Your task to perform on an android device: Open Google Maps and go to "Timeline" Image 0: 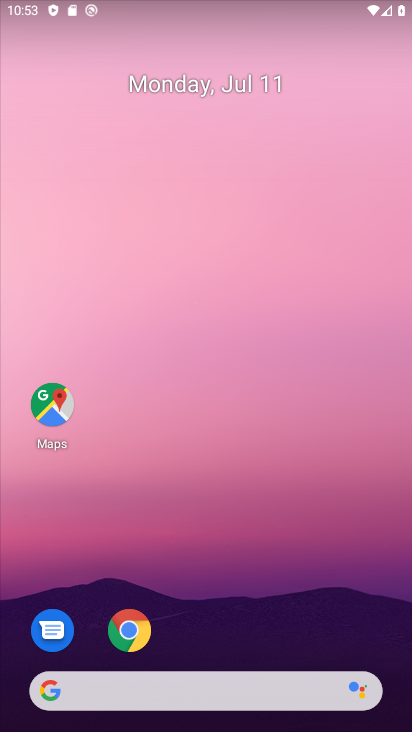
Step 0: drag from (199, 638) to (174, 0)
Your task to perform on an android device: Open Google Maps and go to "Timeline" Image 1: 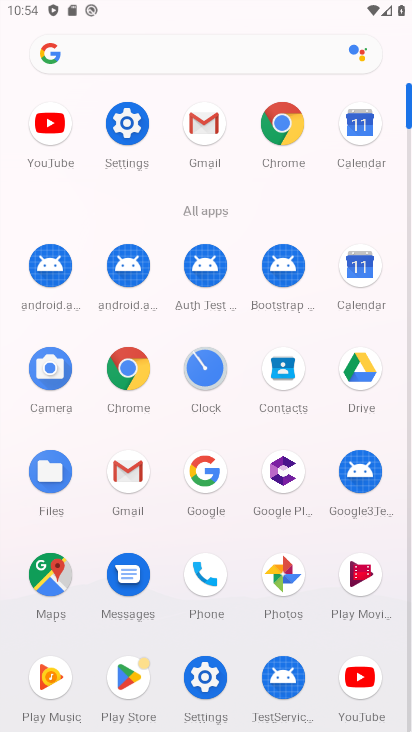
Step 1: click (47, 581)
Your task to perform on an android device: Open Google Maps and go to "Timeline" Image 2: 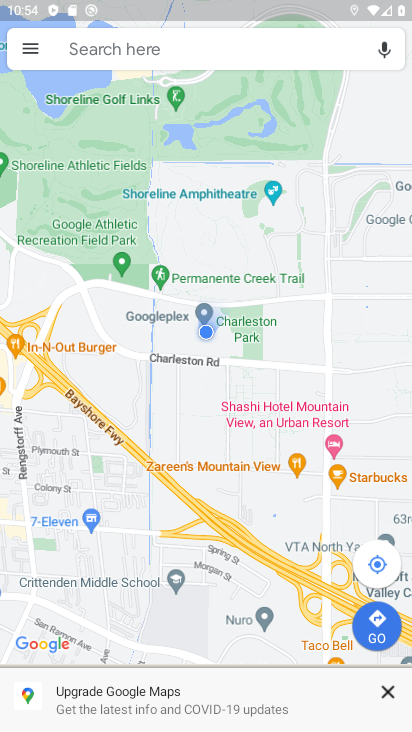
Step 2: click (28, 52)
Your task to perform on an android device: Open Google Maps and go to "Timeline" Image 3: 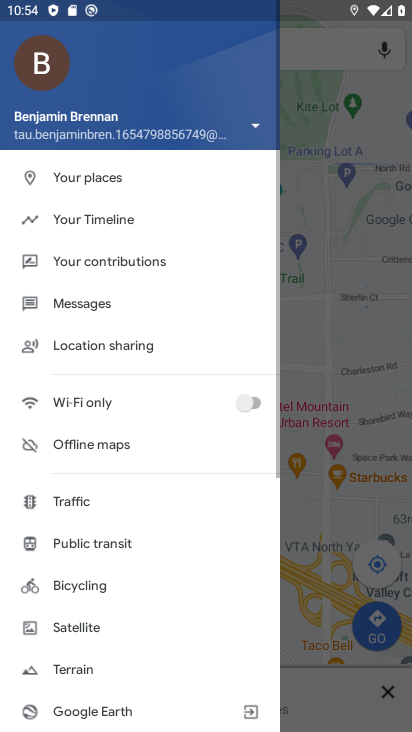
Step 3: click (114, 222)
Your task to perform on an android device: Open Google Maps and go to "Timeline" Image 4: 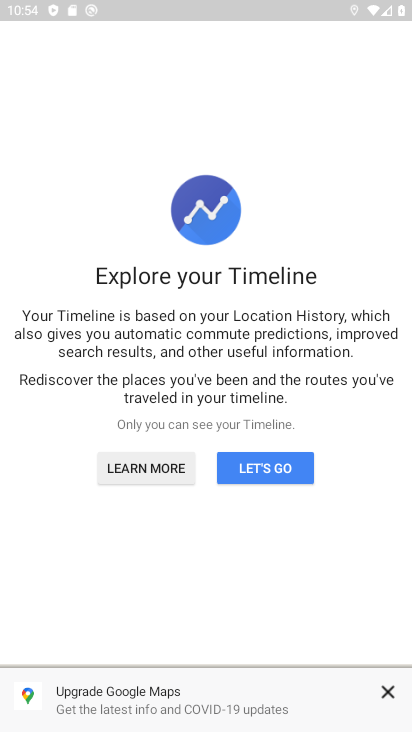
Step 4: click (290, 477)
Your task to perform on an android device: Open Google Maps and go to "Timeline" Image 5: 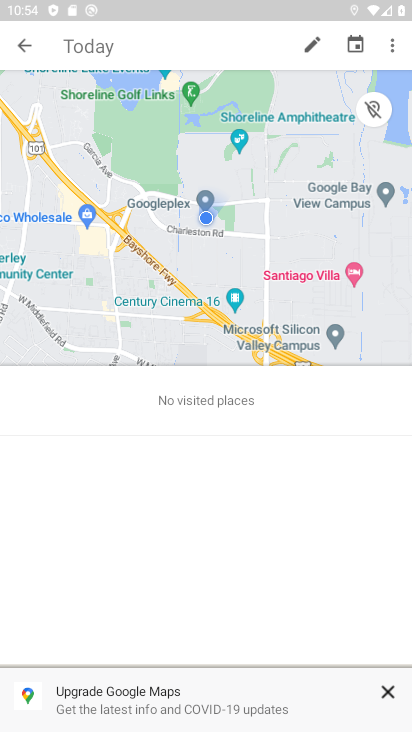
Step 5: task complete